Your task to perform on an android device: choose inbox layout in the gmail app Image 0: 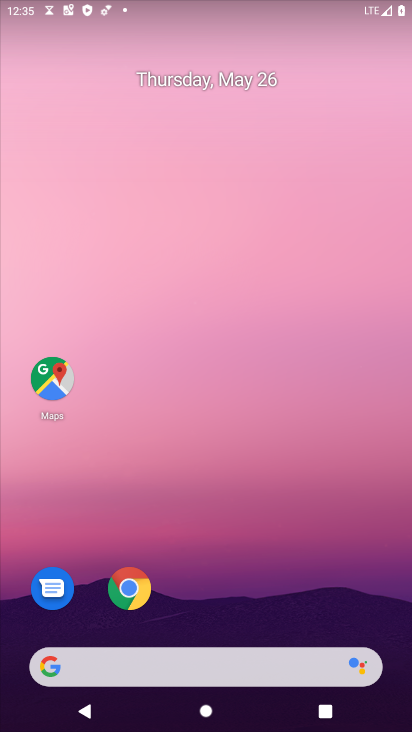
Step 0: drag from (238, 560) to (207, 19)
Your task to perform on an android device: choose inbox layout in the gmail app Image 1: 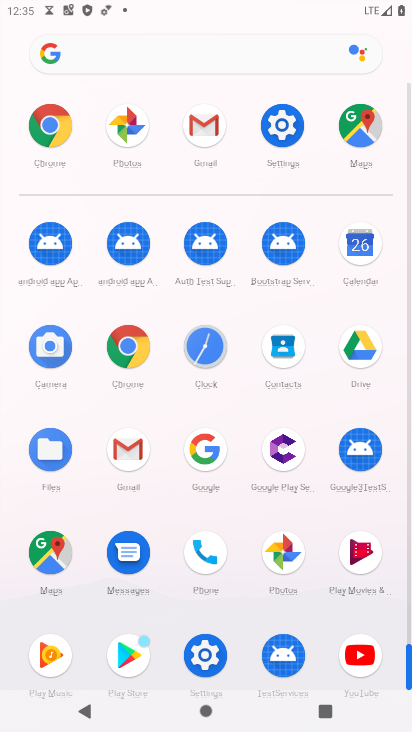
Step 1: drag from (23, 568) to (22, 338)
Your task to perform on an android device: choose inbox layout in the gmail app Image 2: 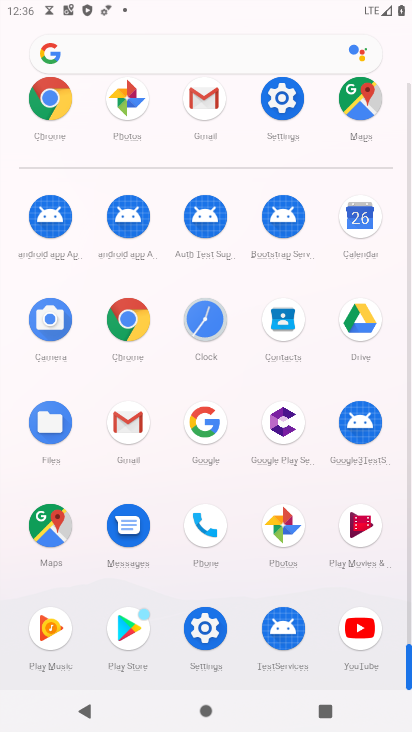
Step 2: click (122, 417)
Your task to perform on an android device: choose inbox layout in the gmail app Image 3: 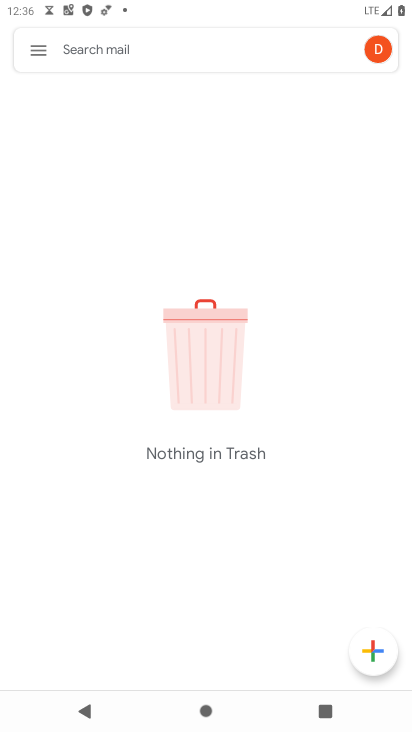
Step 3: click (38, 43)
Your task to perform on an android device: choose inbox layout in the gmail app Image 4: 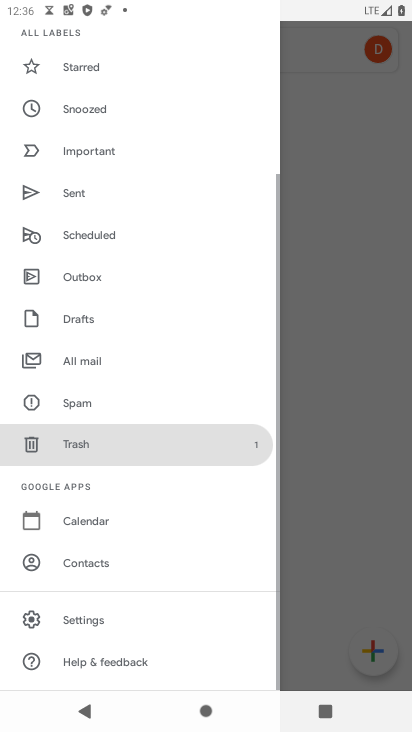
Step 4: click (119, 618)
Your task to perform on an android device: choose inbox layout in the gmail app Image 5: 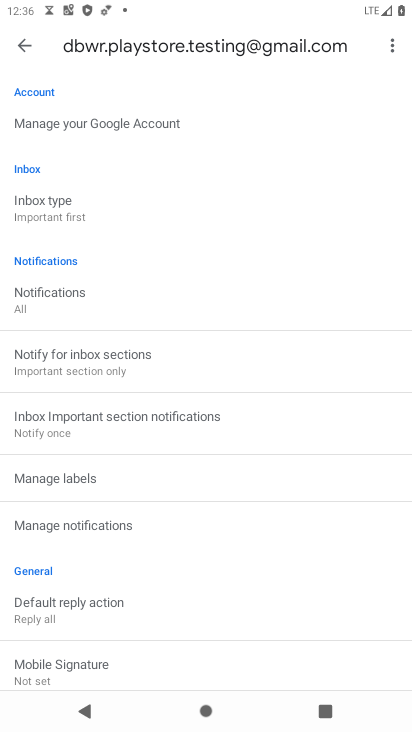
Step 5: click (95, 202)
Your task to perform on an android device: choose inbox layout in the gmail app Image 6: 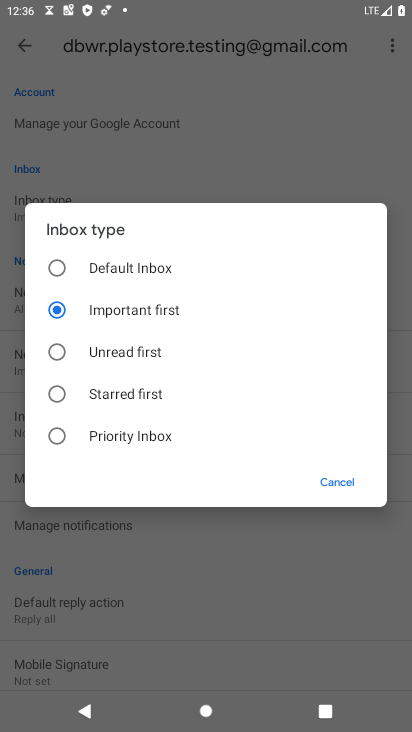
Step 6: click (108, 260)
Your task to perform on an android device: choose inbox layout in the gmail app Image 7: 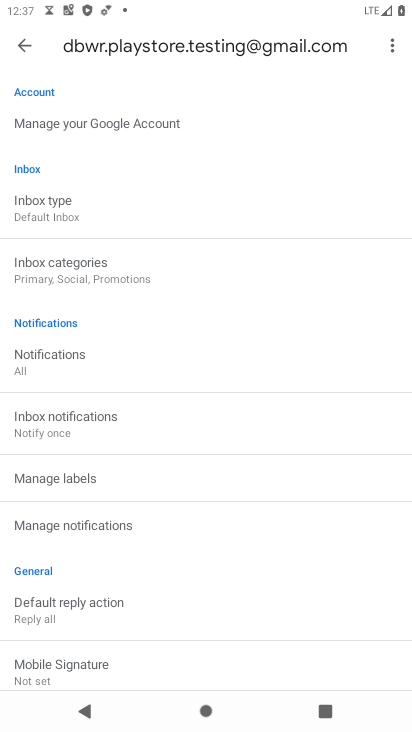
Step 7: task complete